Your task to perform on an android device: Open the map Image 0: 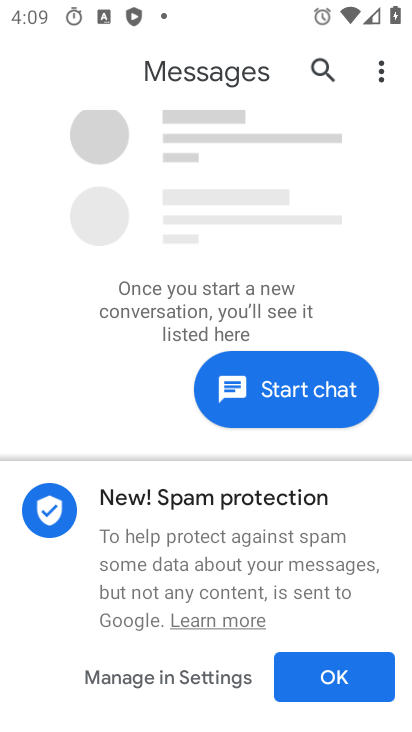
Step 0: press home button
Your task to perform on an android device: Open the map Image 1: 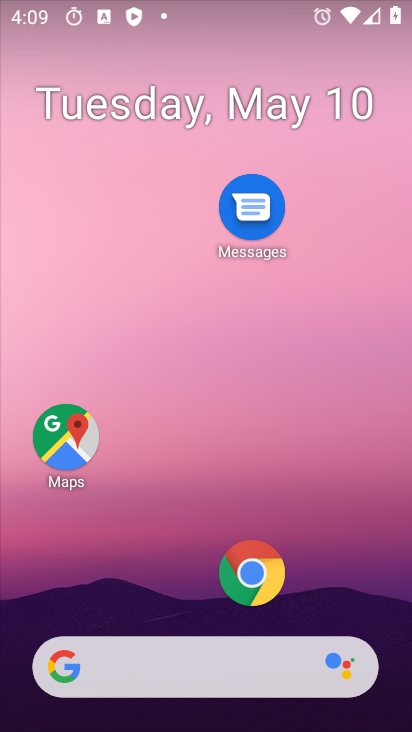
Step 1: click (68, 432)
Your task to perform on an android device: Open the map Image 2: 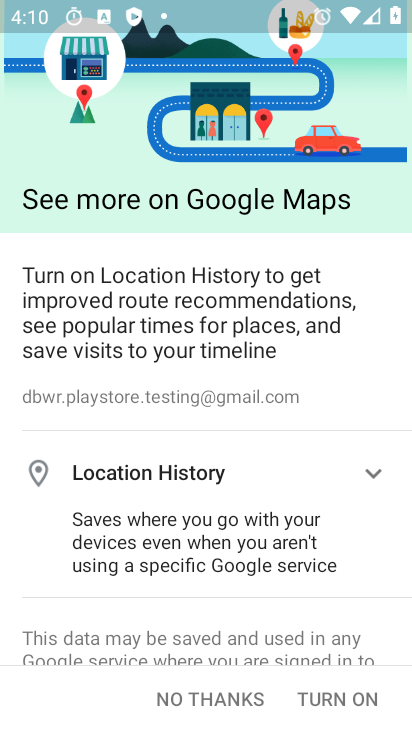
Step 2: click (363, 696)
Your task to perform on an android device: Open the map Image 3: 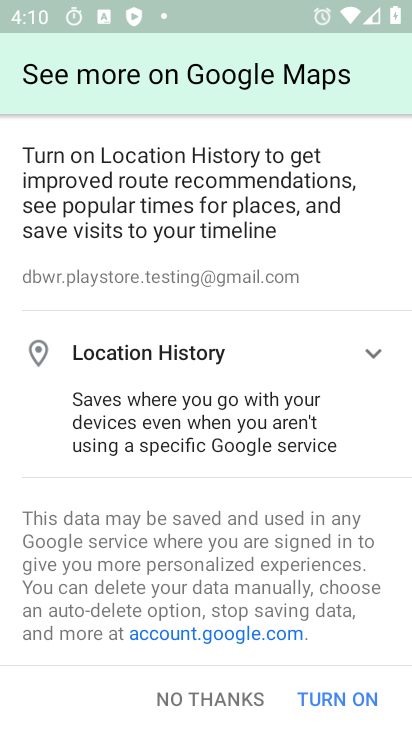
Step 3: click (363, 696)
Your task to perform on an android device: Open the map Image 4: 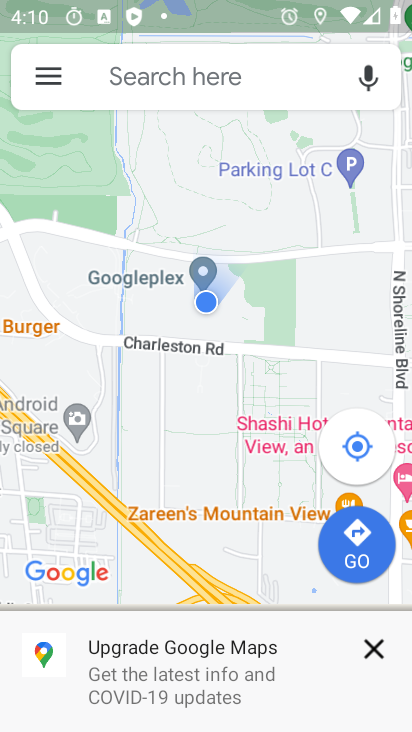
Step 4: click (321, 690)
Your task to perform on an android device: Open the map Image 5: 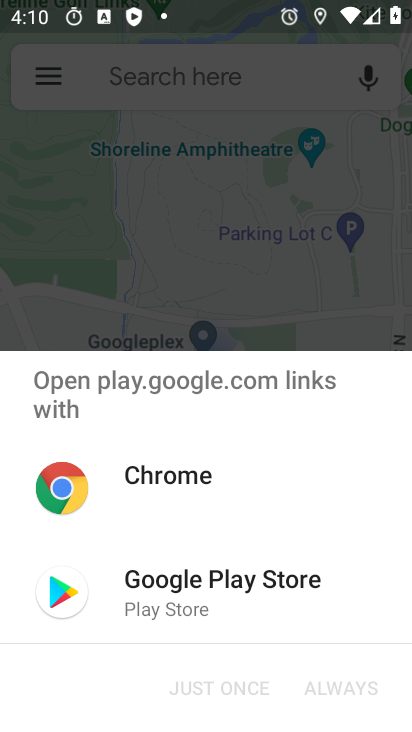
Step 5: click (178, 321)
Your task to perform on an android device: Open the map Image 6: 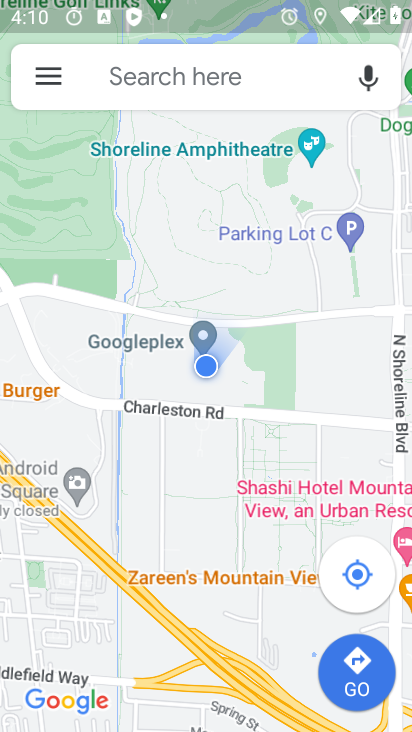
Step 6: task complete